Your task to perform on an android device: What is the recent news? Image 0: 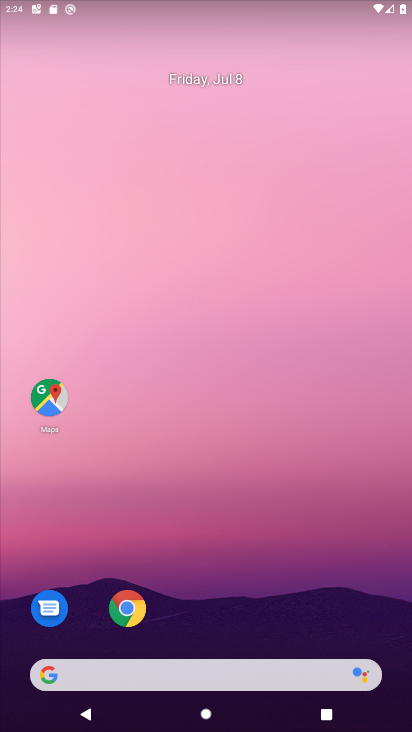
Step 0: drag from (258, 637) to (252, 198)
Your task to perform on an android device: What is the recent news? Image 1: 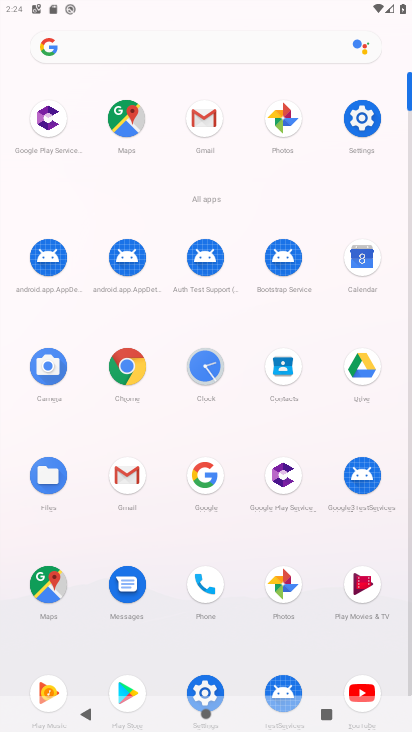
Step 1: click (123, 374)
Your task to perform on an android device: What is the recent news? Image 2: 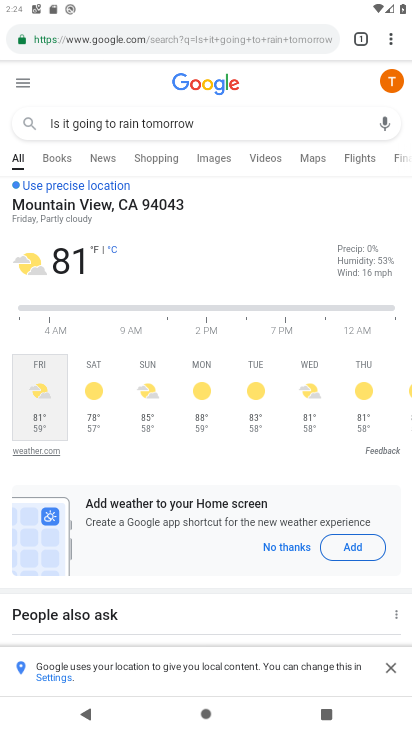
Step 2: click (400, 33)
Your task to perform on an android device: What is the recent news? Image 3: 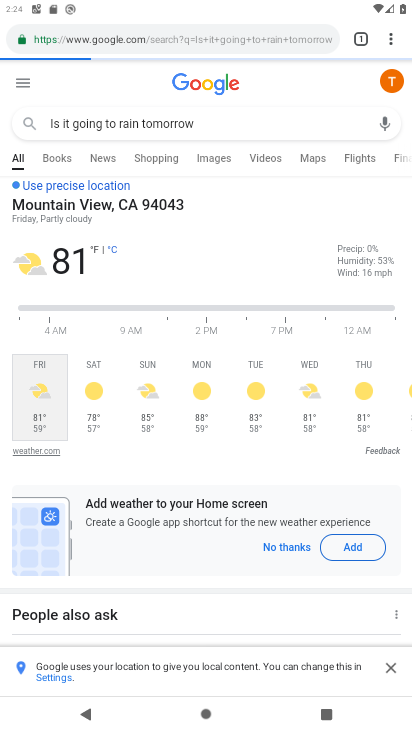
Step 3: click (400, 33)
Your task to perform on an android device: What is the recent news? Image 4: 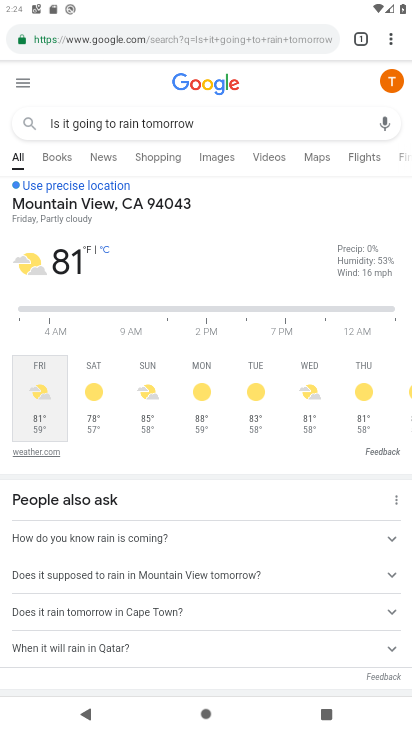
Step 4: click (393, 44)
Your task to perform on an android device: What is the recent news? Image 5: 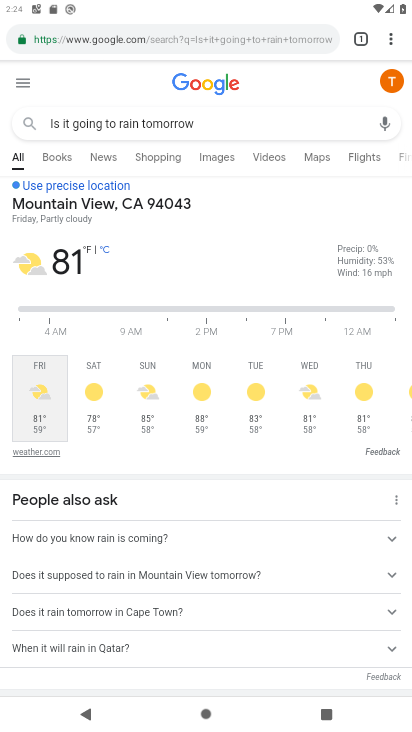
Step 5: click (404, 29)
Your task to perform on an android device: What is the recent news? Image 6: 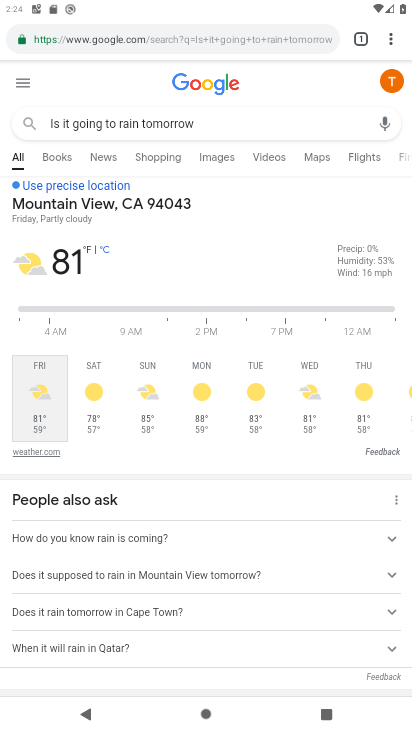
Step 6: click (395, 36)
Your task to perform on an android device: What is the recent news? Image 7: 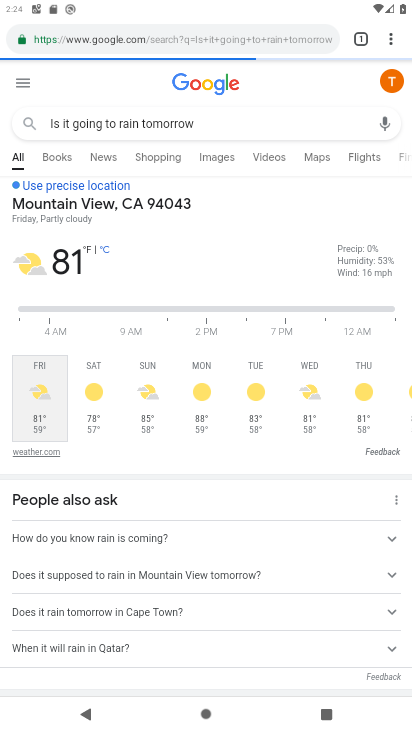
Step 7: click (395, 36)
Your task to perform on an android device: What is the recent news? Image 8: 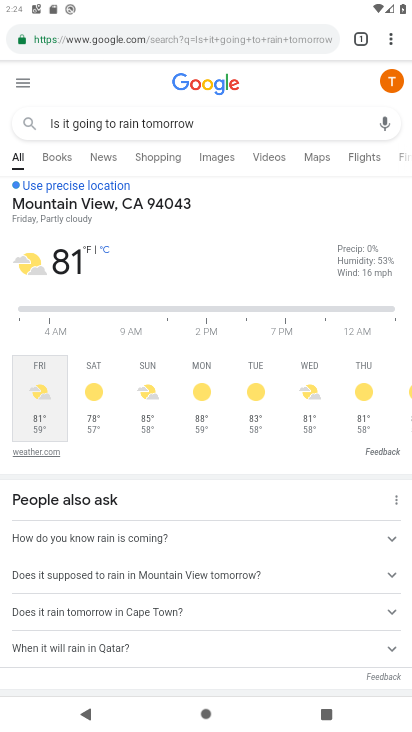
Step 8: click (387, 36)
Your task to perform on an android device: What is the recent news? Image 9: 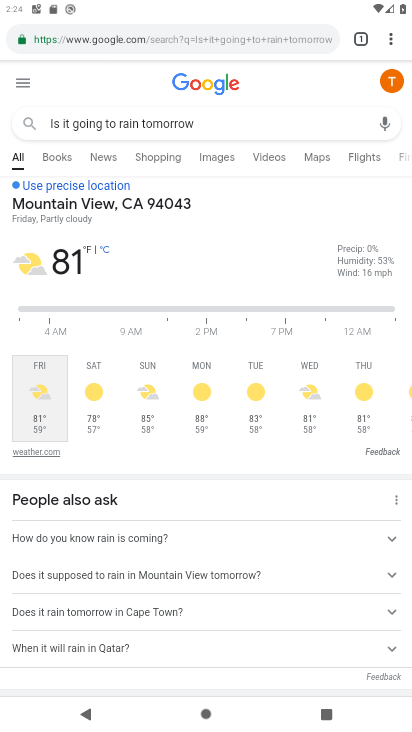
Step 9: click (384, 37)
Your task to perform on an android device: What is the recent news? Image 10: 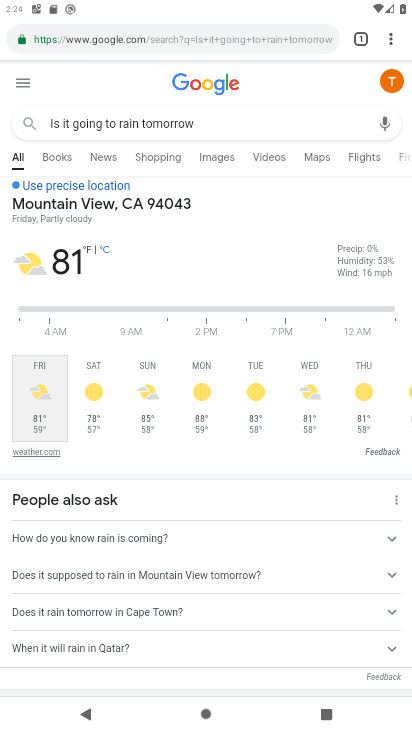
Step 10: click (400, 44)
Your task to perform on an android device: What is the recent news? Image 11: 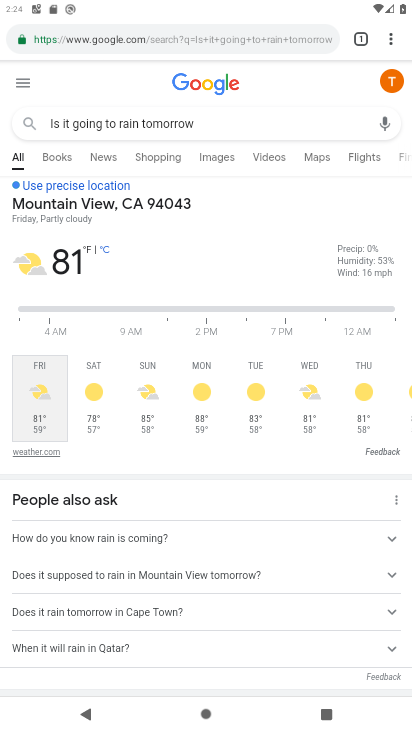
Step 11: click (391, 35)
Your task to perform on an android device: What is the recent news? Image 12: 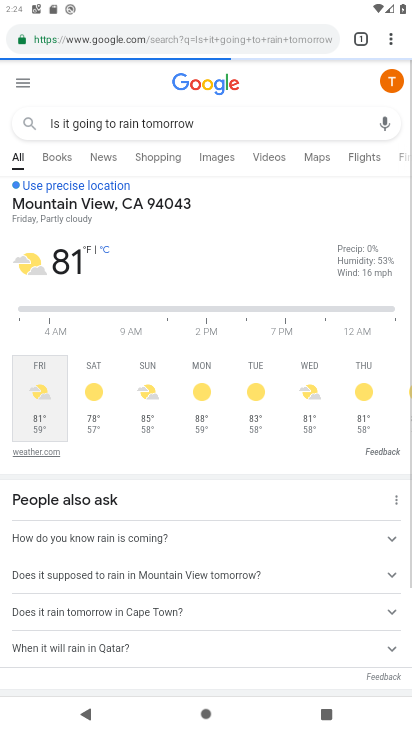
Step 12: click (391, 35)
Your task to perform on an android device: What is the recent news? Image 13: 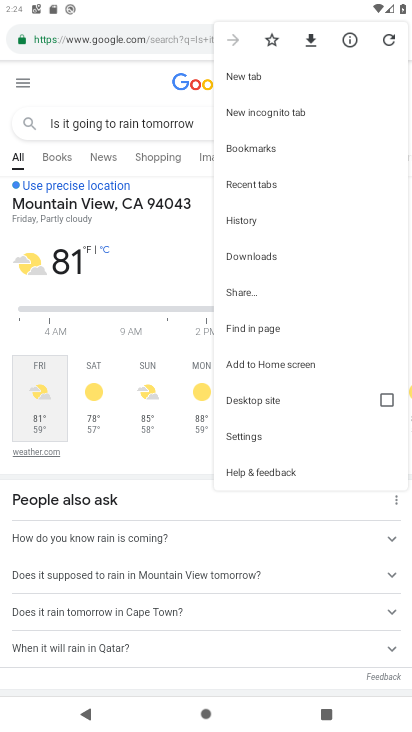
Step 13: click (261, 72)
Your task to perform on an android device: What is the recent news? Image 14: 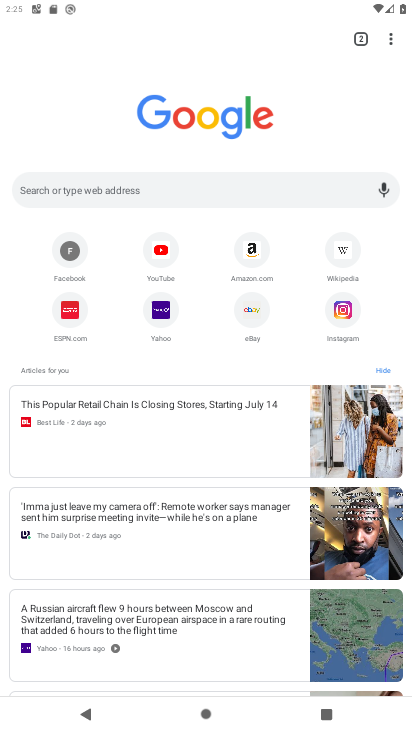
Step 14: click (194, 176)
Your task to perform on an android device: What is the recent news? Image 15: 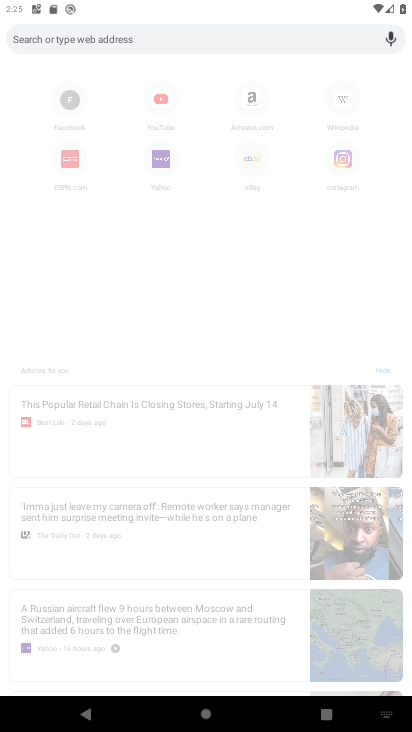
Step 15: type "What is the recent news "
Your task to perform on an android device: What is the recent news? Image 16: 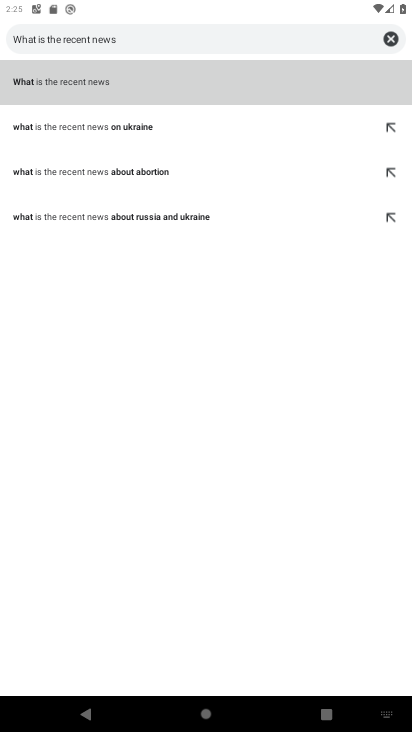
Step 16: click (114, 79)
Your task to perform on an android device: What is the recent news? Image 17: 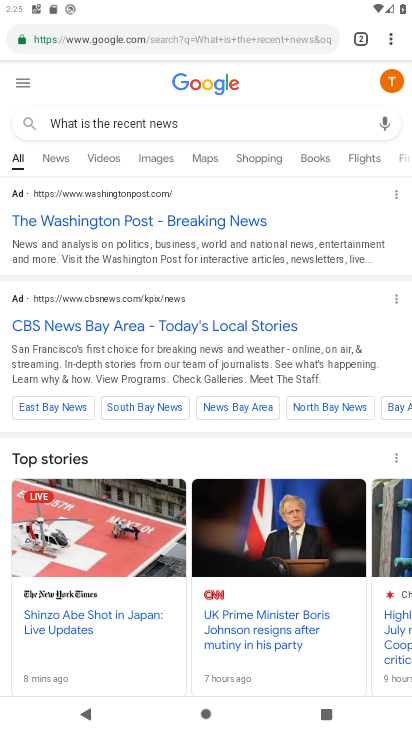
Step 17: task complete